Your task to perform on an android device: change timer sound Image 0: 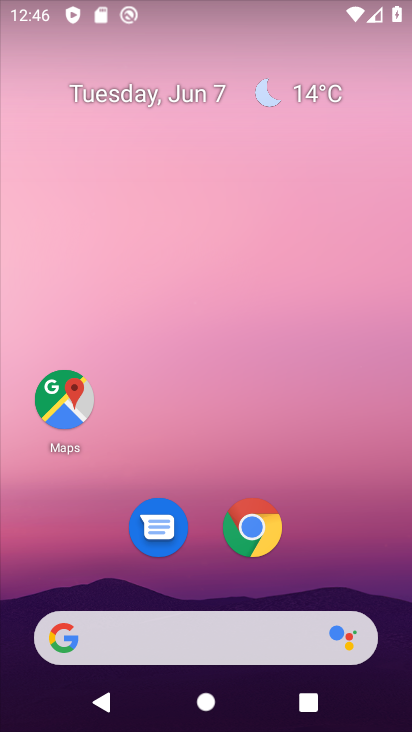
Step 0: drag from (165, 527) to (224, 9)
Your task to perform on an android device: change timer sound Image 1: 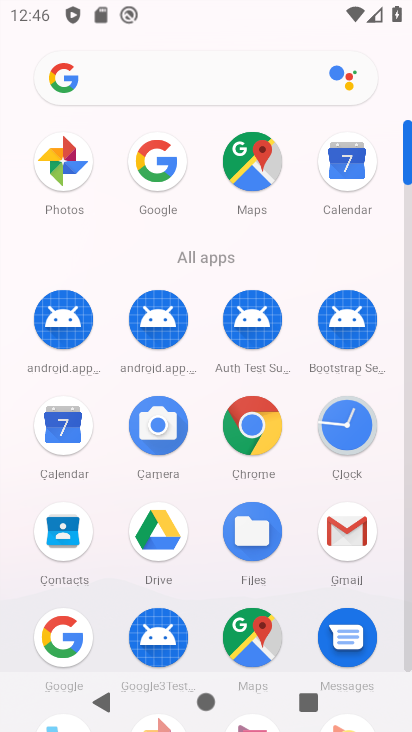
Step 1: click (331, 427)
Your task to perform on an android device: change timer sound Image 2: 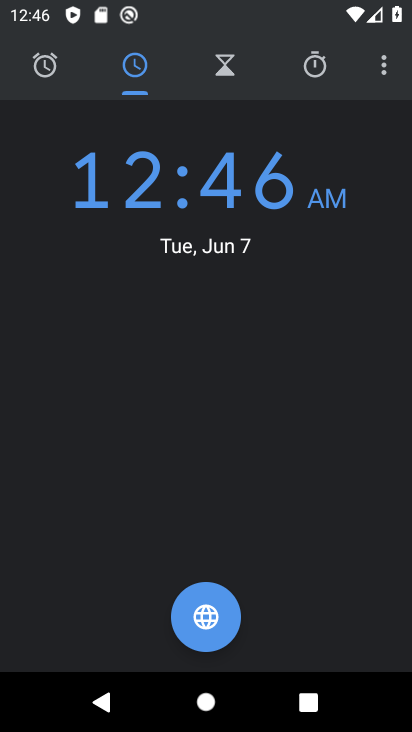
Step 2: drag from (379, 60) to (286, 363)
Your task to perform on an android device: change timer sound Image 3: 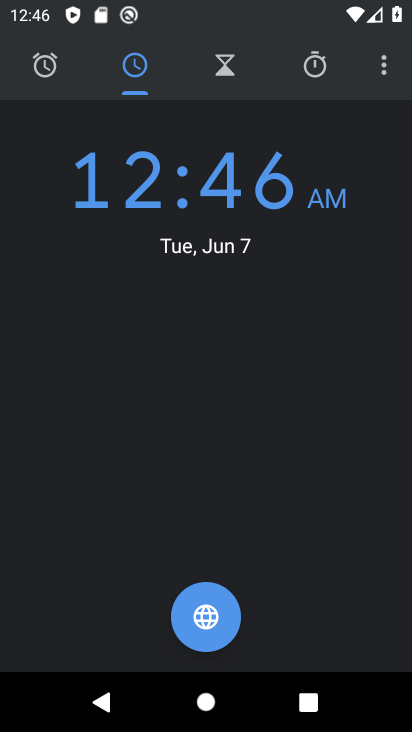
Step 3: click (388, 65)
Your task to perform on an android device: change timer sound Image 4: 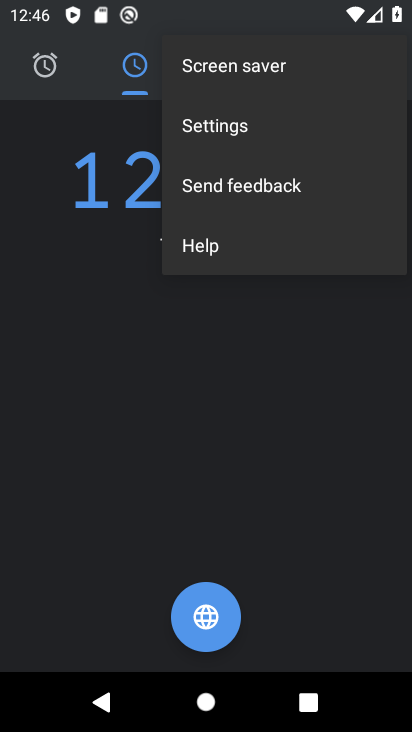
Step 4: click (197, 118)
Your task to perform on an android device: change timer sound Image 5: 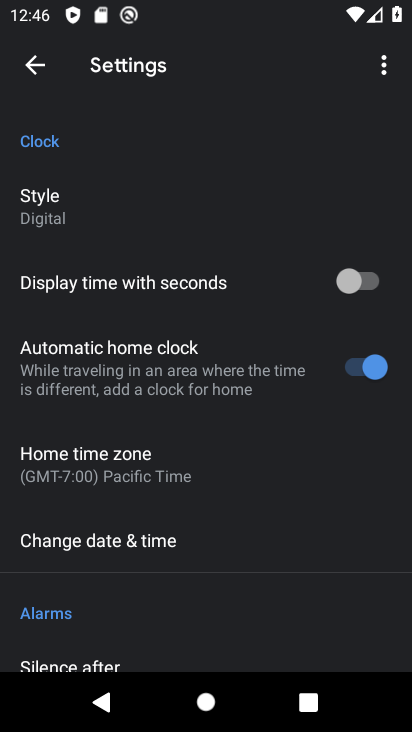
Step 5: drag from (156, 565) to (222, 89)
Your task to perform on an android device: change timer sound Image 6: 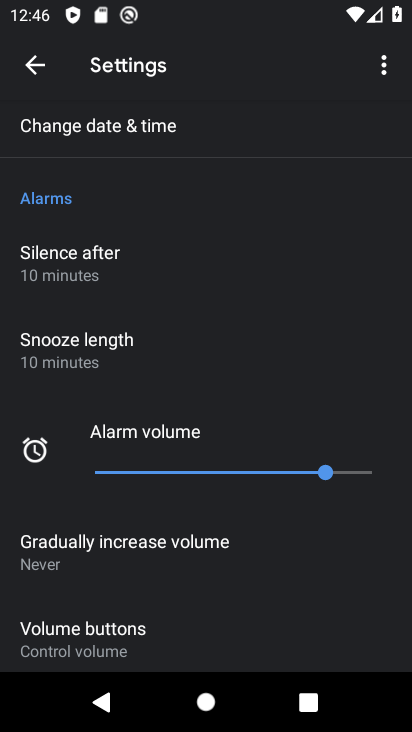
Step 6: drag from (154, 629) to (203, 141)
Your task to perform on an android device: change timer sound Image 7: 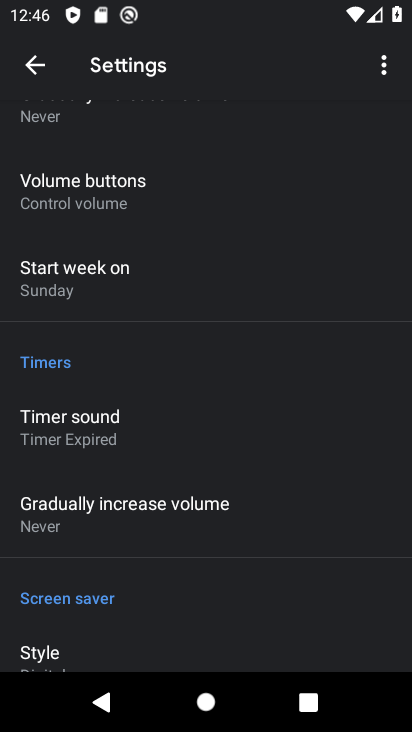
Step 7: click (68, 447)
Your task to perform on an android device: change timer sound Image 8: 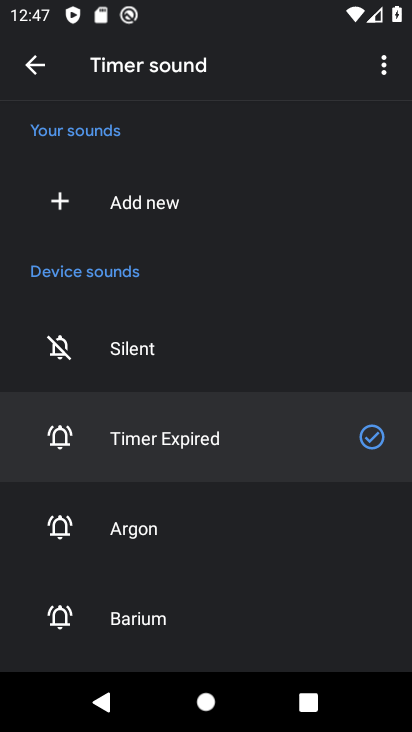
Step 8: click (193, 544)
Your task to perform on an android device: change timer sound Image 9: 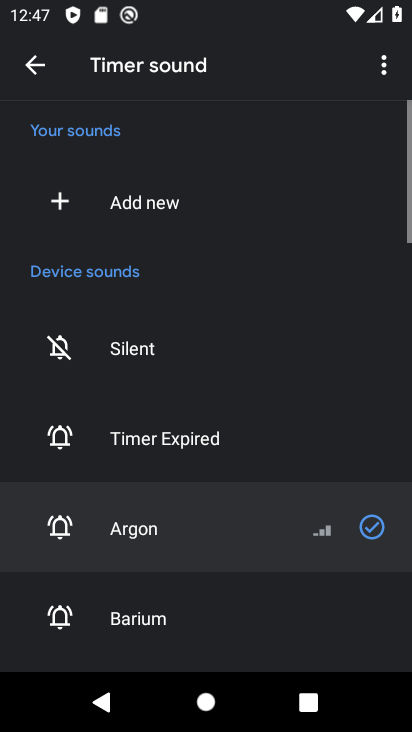
Step 9: task complete